Your task to perform on an android device: open app "Facebook" (install if not already installed) Image 0: 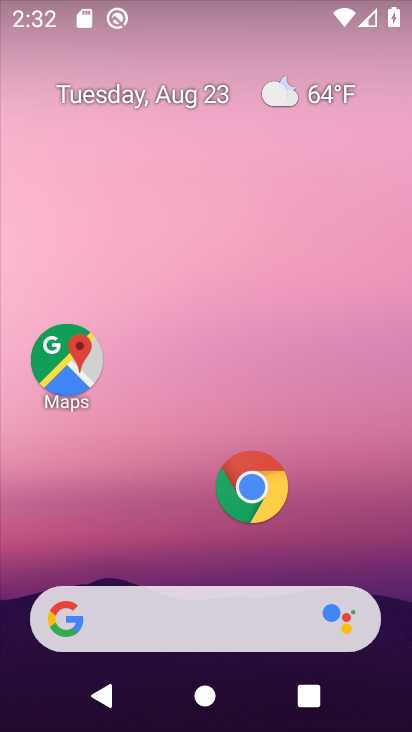
Step 0: drag from (169, 555) to (219, 206)
Your task to perform on an android device: open app "Facebook" (install if not already installed) Image 1: 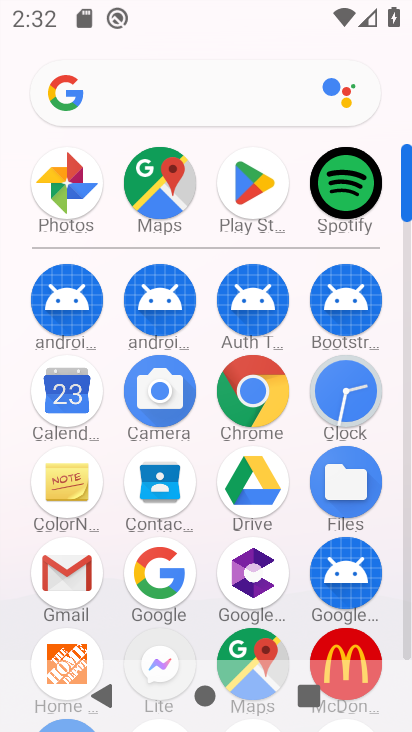
Step 1: click (257, 184)
Your task to perform on an android device: open app "Facebook" (install if not already installed) Image 2: 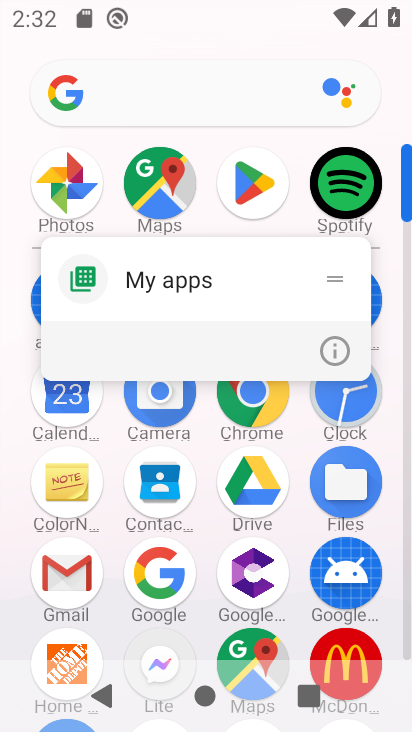
Step 2: click (257, 184)
Your task to perform on an android device: open app "Facebook" (install if not already installed) Image 3: 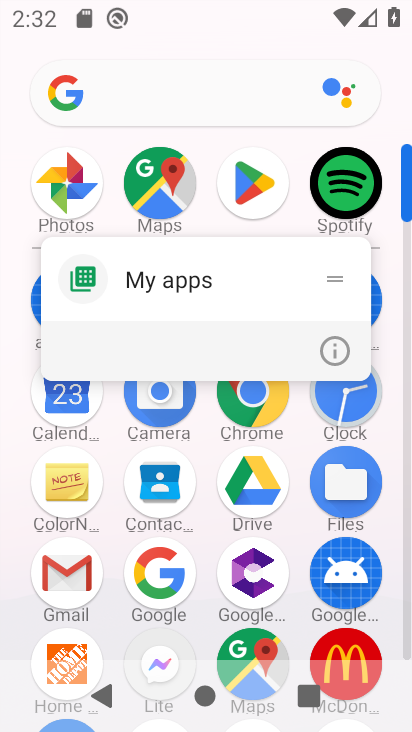
Step 3: click (237, 182)
Your task to perform on an android device: open app "Facebook" (install if not already installed) Image 4: 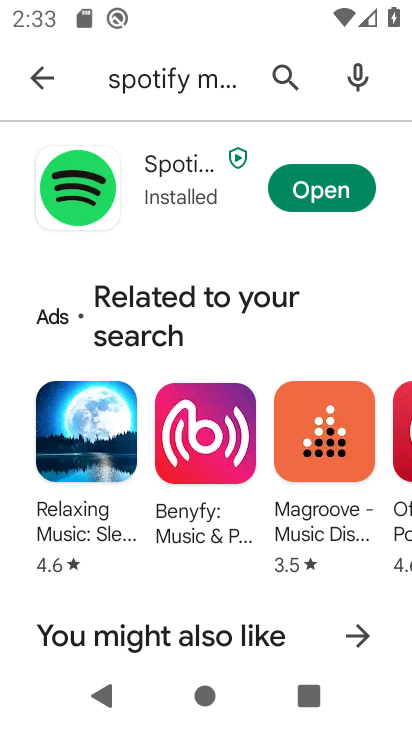
Step 4: task complete